Your task to perform on an android device: See recent photos Image 0: 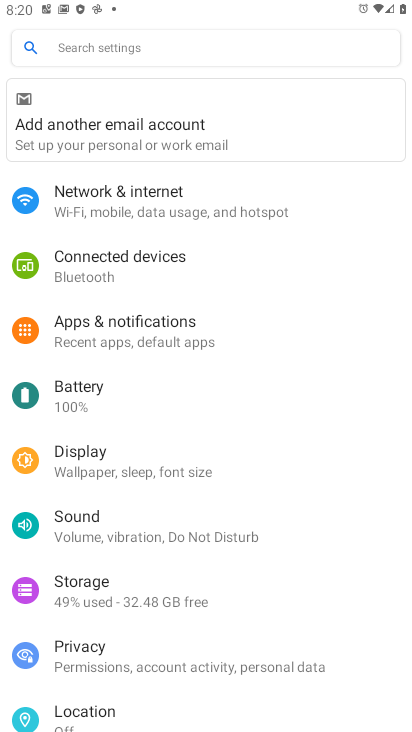
Step 0: press home button
Your task to perform on an android device: See recent photos Image 1: 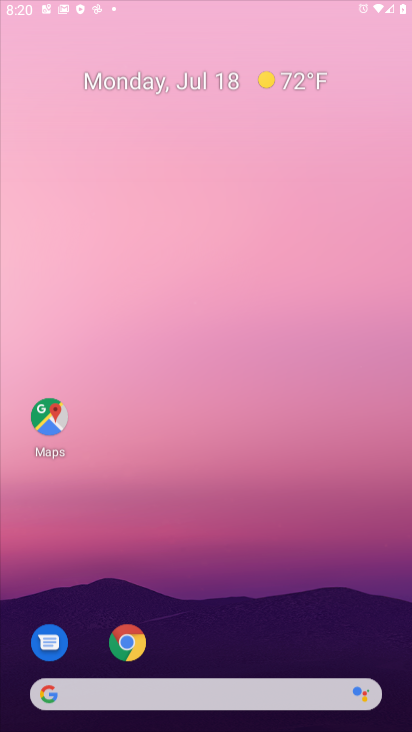
Step 1: drag from (388, 686) to (226, 16)
Your task to perform on an android device: See recent photos Image 2: 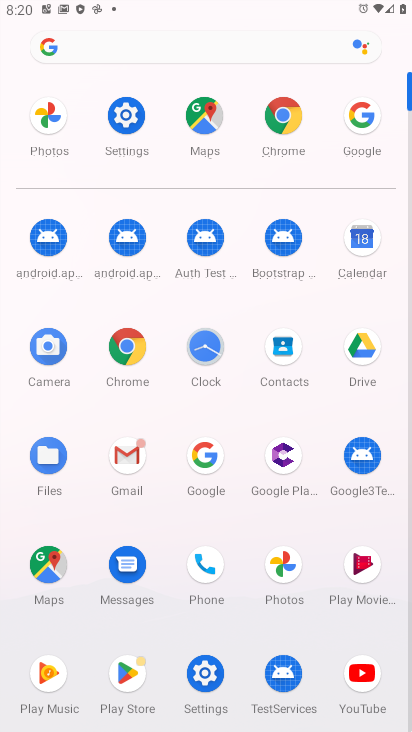
Step 2: click (199, 458)
Your task to perform on an android device: See recent photos Image 3: 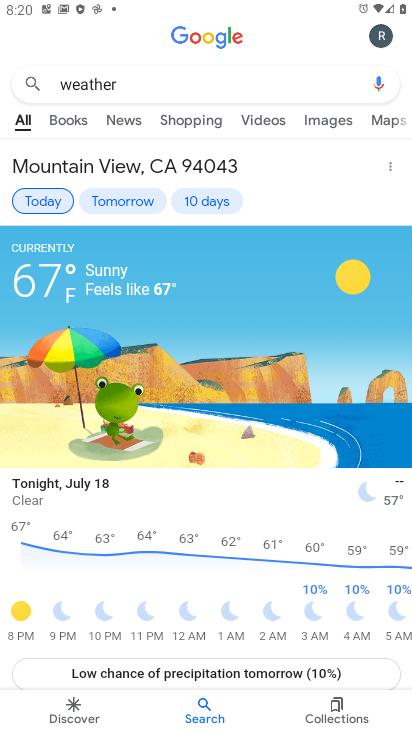
Step 3: press back button
Your task to perform on an android device: See recent photos Image 4: 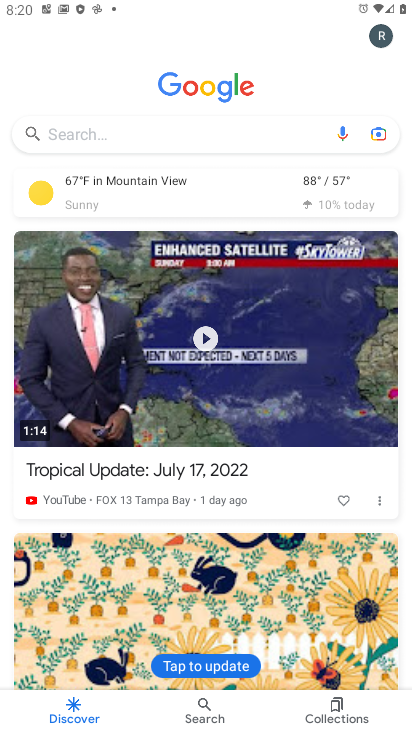
Step 4: click (132, 132)
Your task to perform on an android device: See recent photos Image 5: 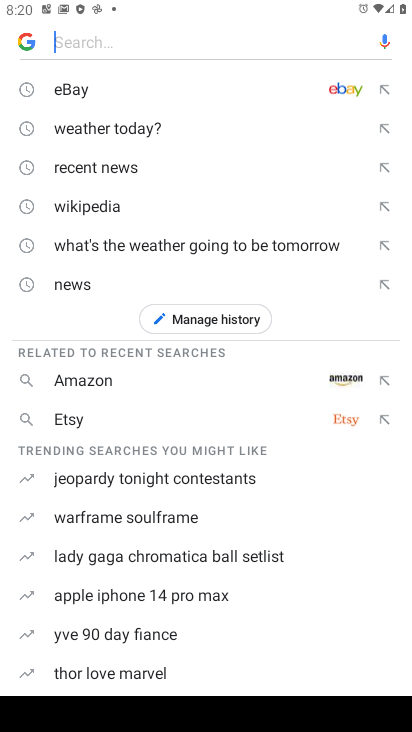
Step 5: click (109, 167)
Your task to perform on an android device: See recent photos Image 6: 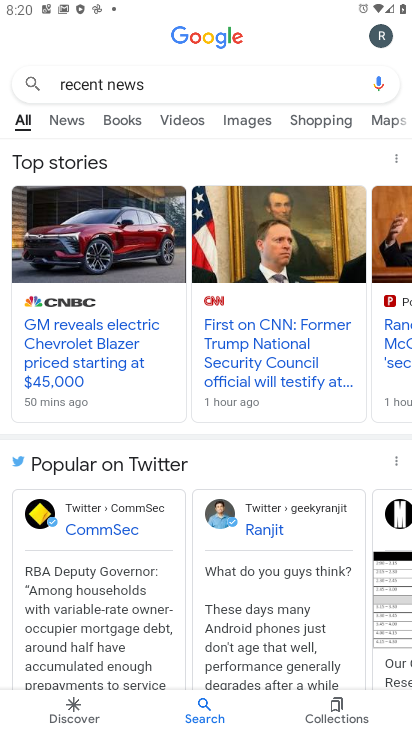
Step 6: task complete